Your task to perform on an android device: allow cookies in the chrome app Image 0: 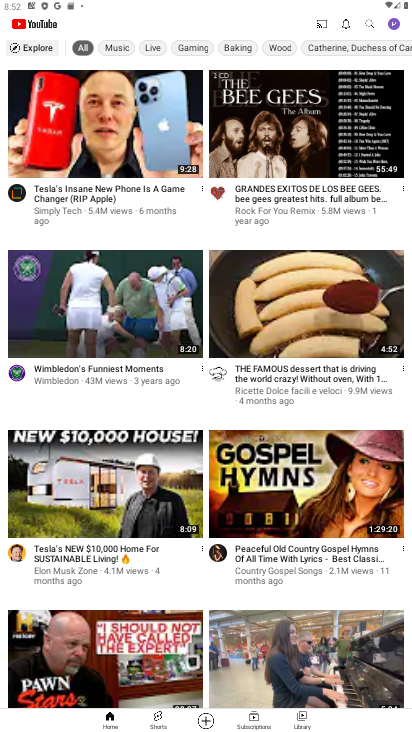
Step 0: task complete